Your task to perform on an android device: find snoozed emails in the gmail app Image 0: 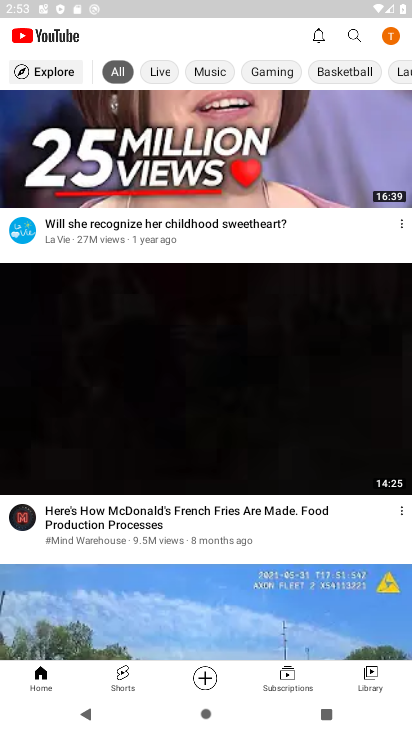
Step 0: press home button
Your task to perform on an android device: find snoozed emails in the gmail app Image 1: 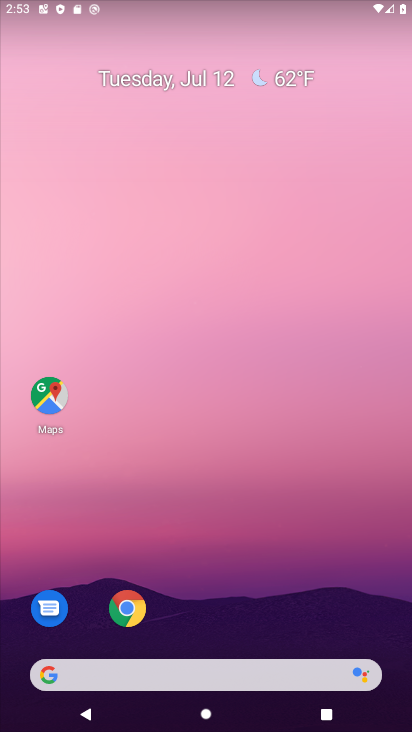
Step 1: drag from (146, 680) to (272, 160)
Your task to perform on an android device: find snoozed emails in the gmail app Image 2: 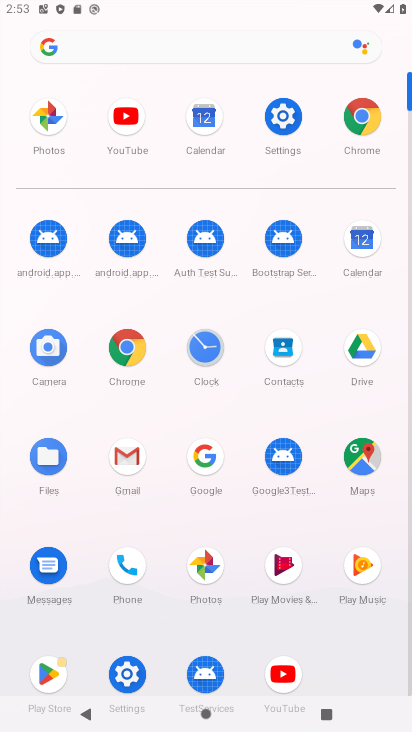
Step 2: click (121, 457)
Your task to perform on an android device: find snoozed emails in the gmail app Image 3: 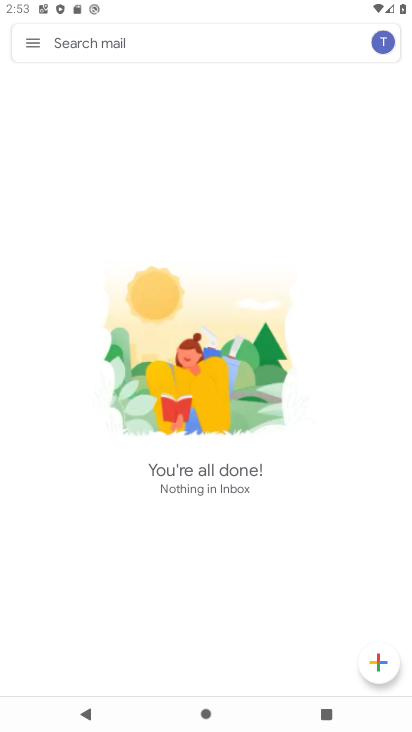
Step 3: click (29, 35)
Your task to perform on an android device: find snoozed emails in the gmail app Image 4: 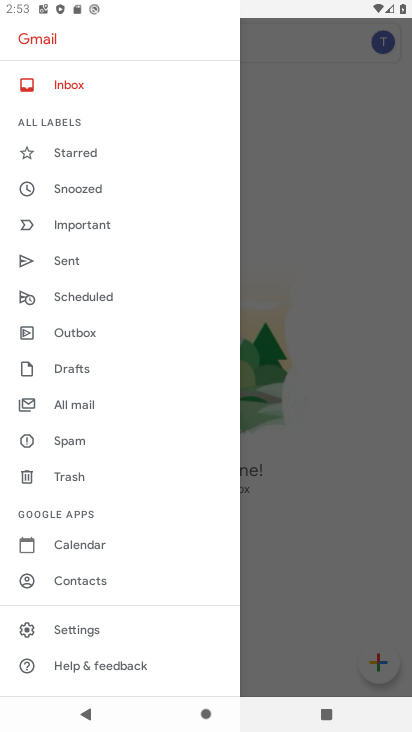
Step 4: click (84, 190)
Your task to perform on an android device: find snoozed emails in the gmail app Image 5: 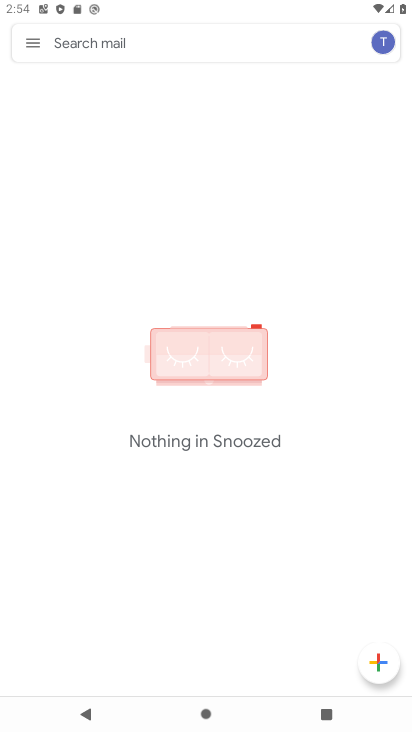
Step 5: task complete